Your task to perform on an android device: star an email in the gmail app Image 0: 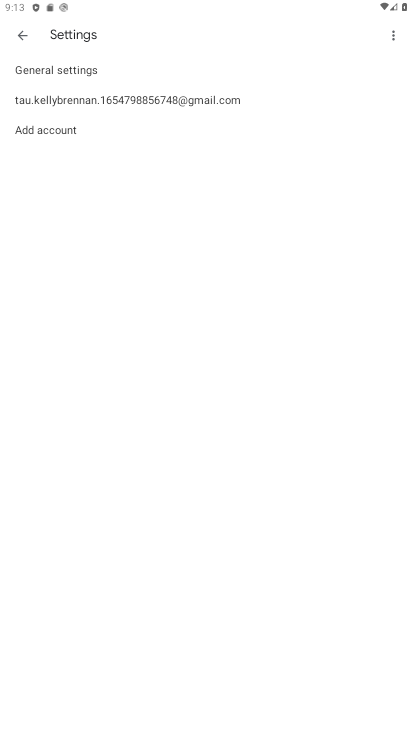
Step 0: press home button
Your task to perform on an android device: star an email in the gmail app Image 1: 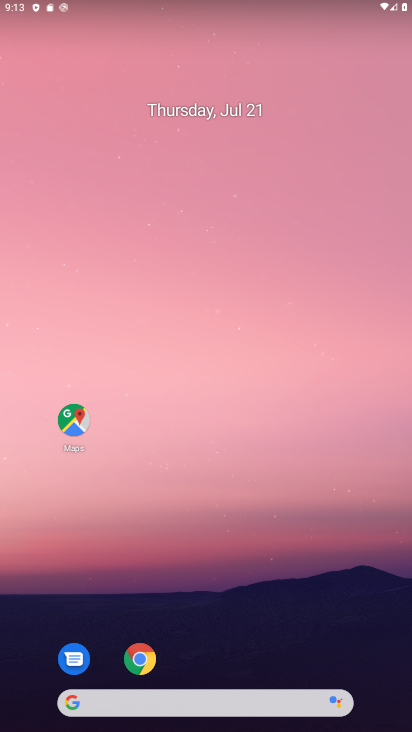
Step 1: drag from (215, 663) to (131, 111)
Your task to perform on an android device: star an email in the gmail app Image 2: 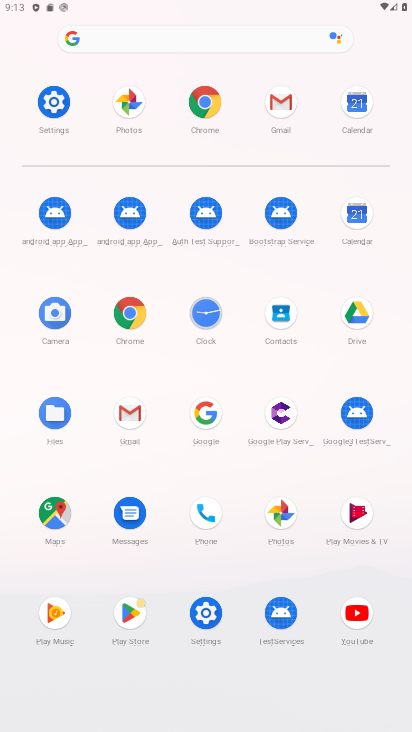
Step 2: click (129, 413)
Your task to perform on an android device: star an email in the gmail app Image 3: 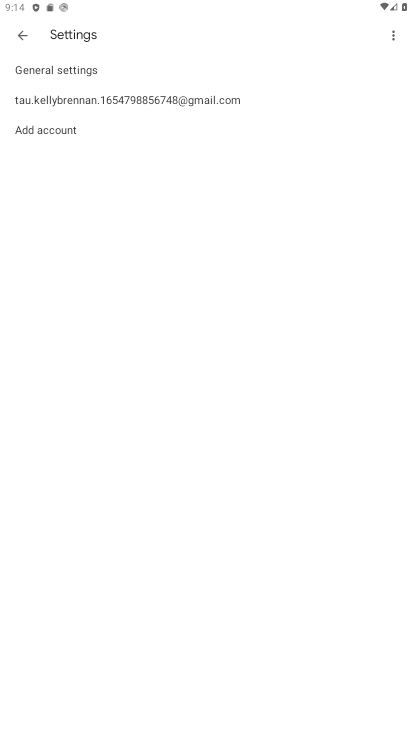
Step 3: click (19, 33)
Your task to perform on an android device: star an email in the gmail app Image 4: 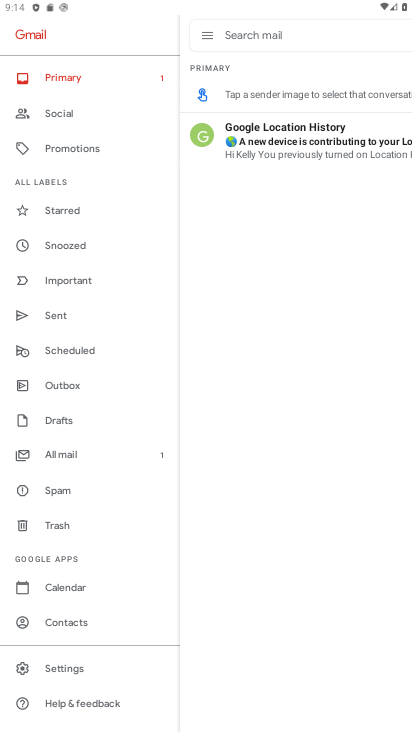
Step 4: click (301, 146)
Your task to perform on an android device: star an email in the gmail app Image 5: 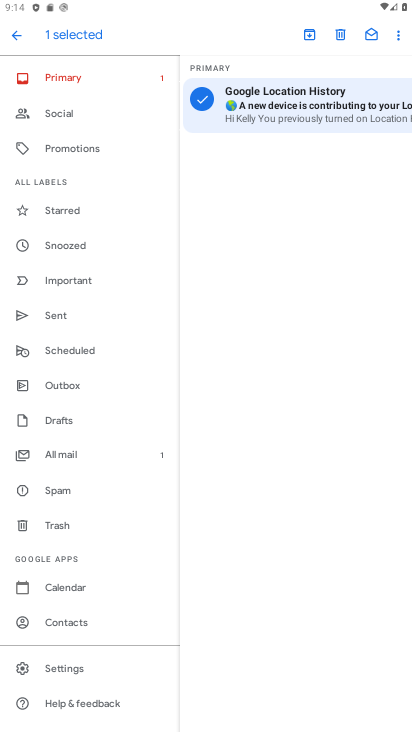
Step 5: click (408, 32)
Your task to perform on an android device: star an email in the gmail app Image 6: 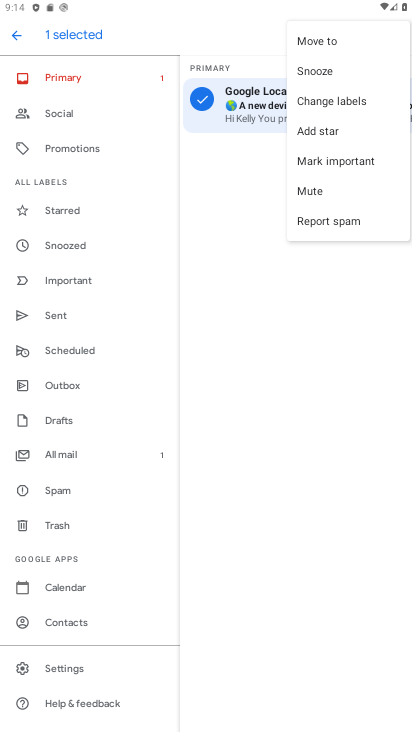
Step 6: click (316, 125)
Your task to perform on an android device: star an email in the gmail app Image 7: 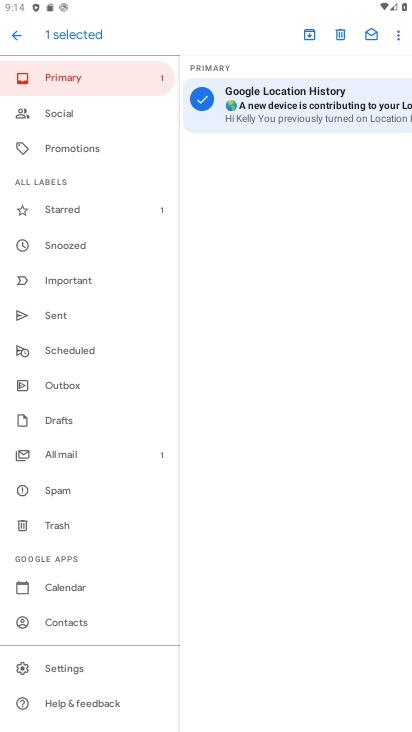
Step 7: task complete